Your task to perform on an android device: Open the calendar app, open the side menu, and click the "Day" option Image 0: 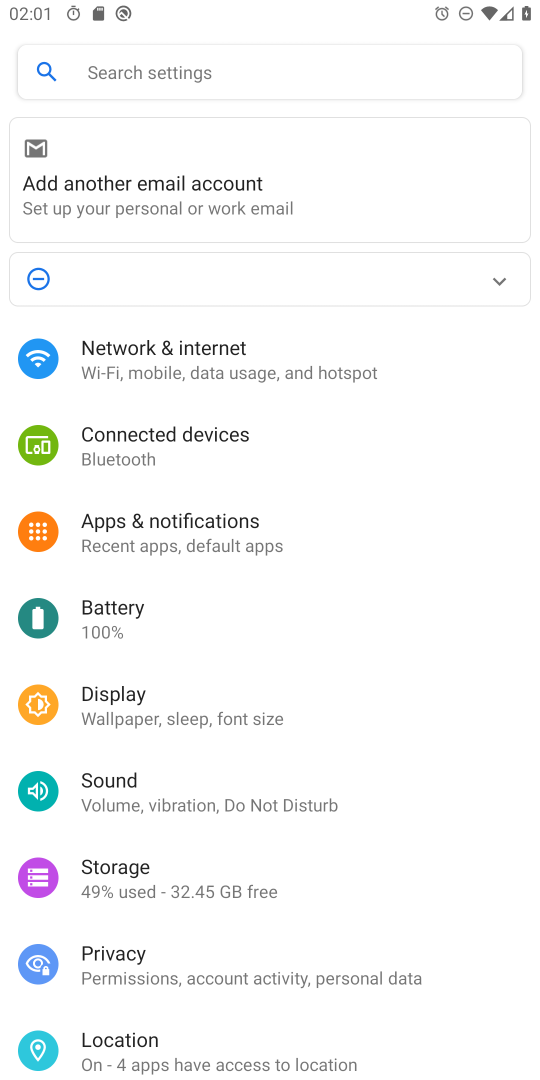
Step 0: press home button
Your task to perform on an android device: Open the calendar app, open the side menu, and click the "Day" option Image 1: 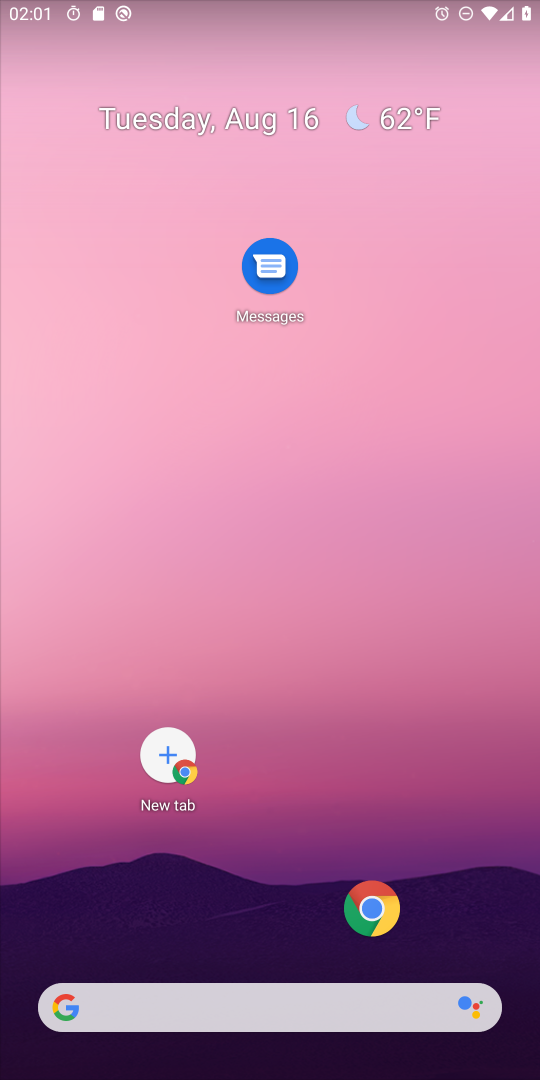
Step 1: click (210, 114)
Your task to perform on an android device: Open the calendar app, open the side menu, and click the "Day" option Image 2: 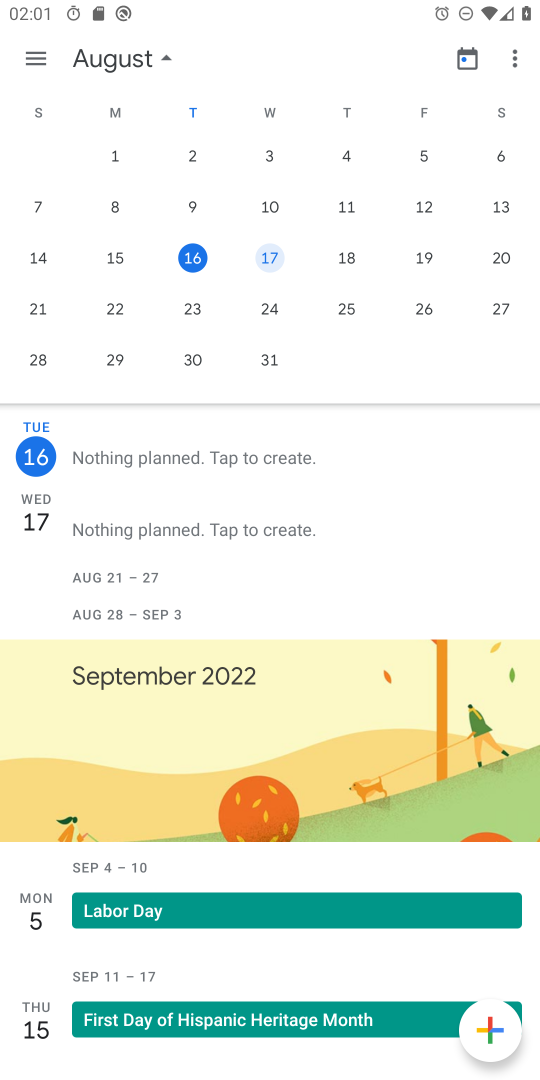
Step 2: click (34, 41)
Your task to perform on an android device: Open the calendar app, open the side menu, and click the "Day" option Image 3: 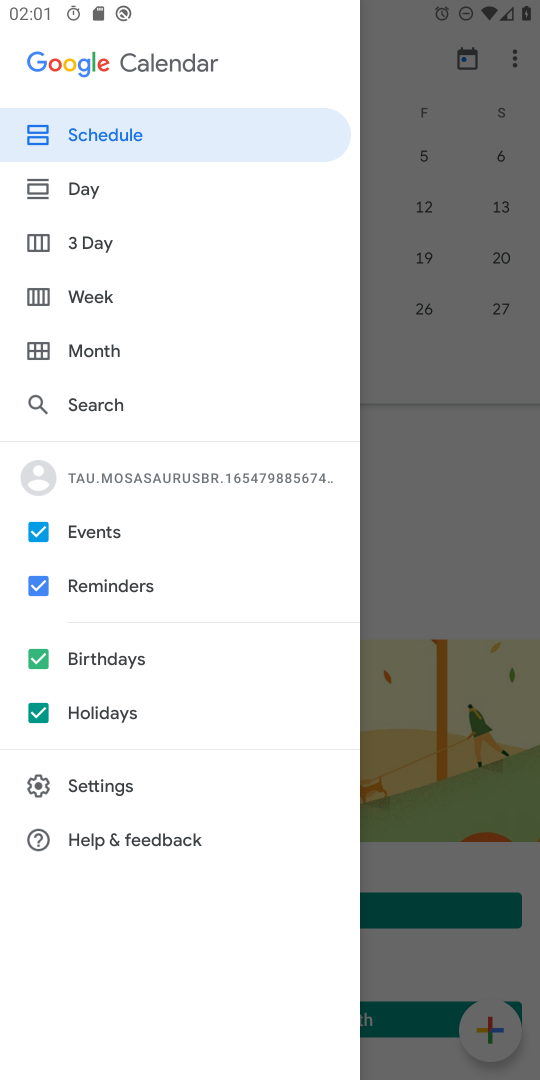
Step 3: click (124, 191)
Your task to perform on an android device: Open the calendar app, open the side menu, and click the "Day" option Image 4: 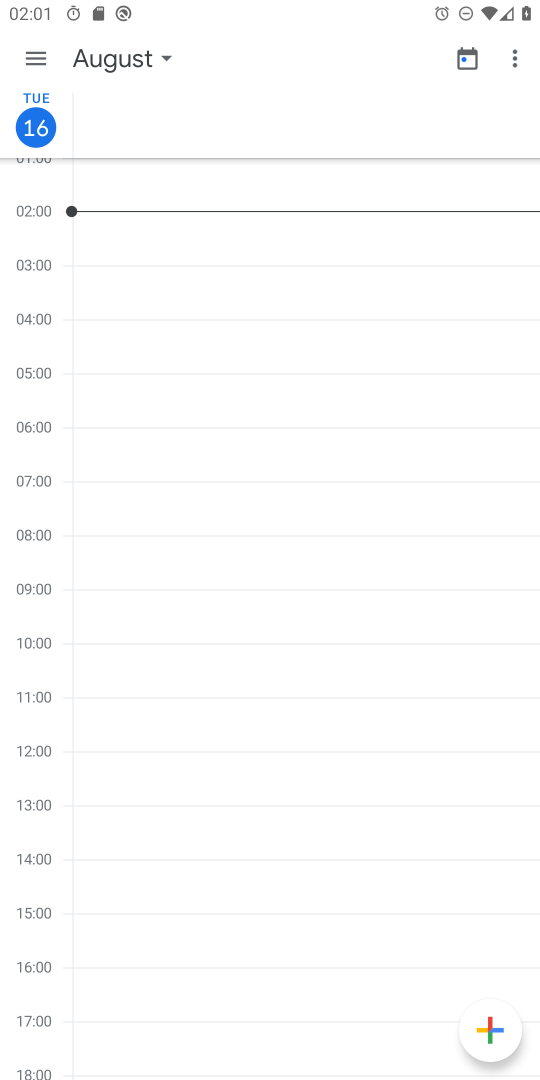
Step 4: task complete